Your task to perform on an android device: turn on sleep mode Image 0: 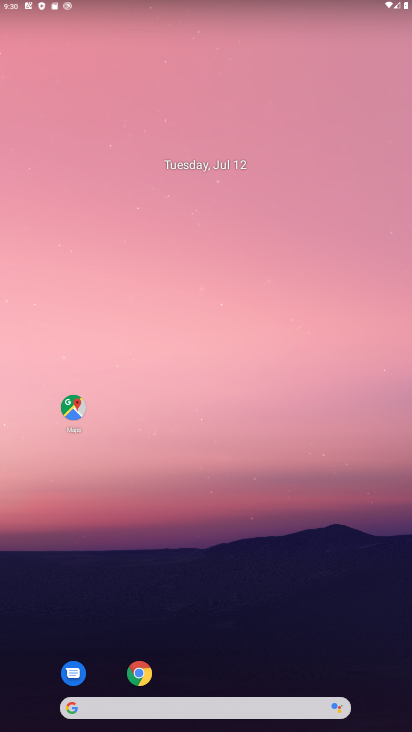
Step 0: click (231, 309)
Your task to perform on an android device: turn on sleep mode Image 1: 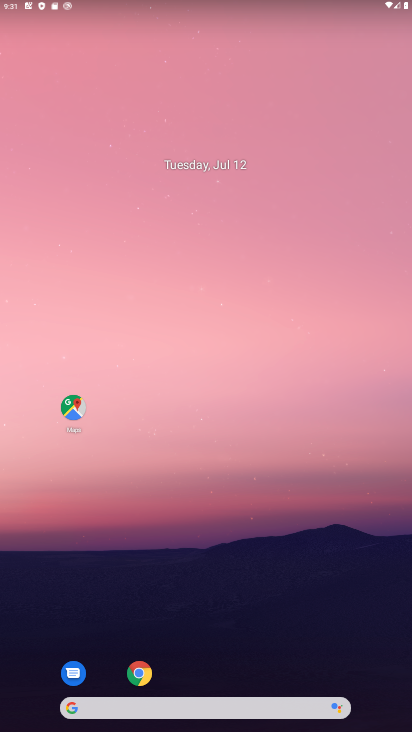
Step 1: drag from (209, 600) to (205, 171)
Your task to perform on an android device: turn on sleep mode Image 2: 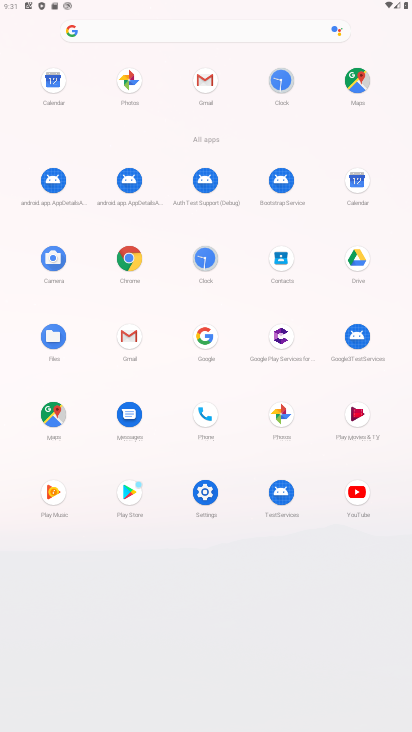
Step 2: click (207, 501)
Your task to perform on an android device: turn on sleep mode Image 3: 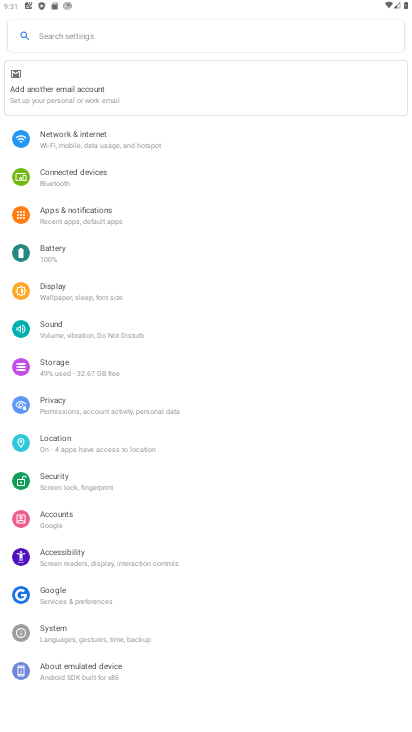
Step 3: task complete